Your task to perform on an android device: Go to Android settings Image 0: 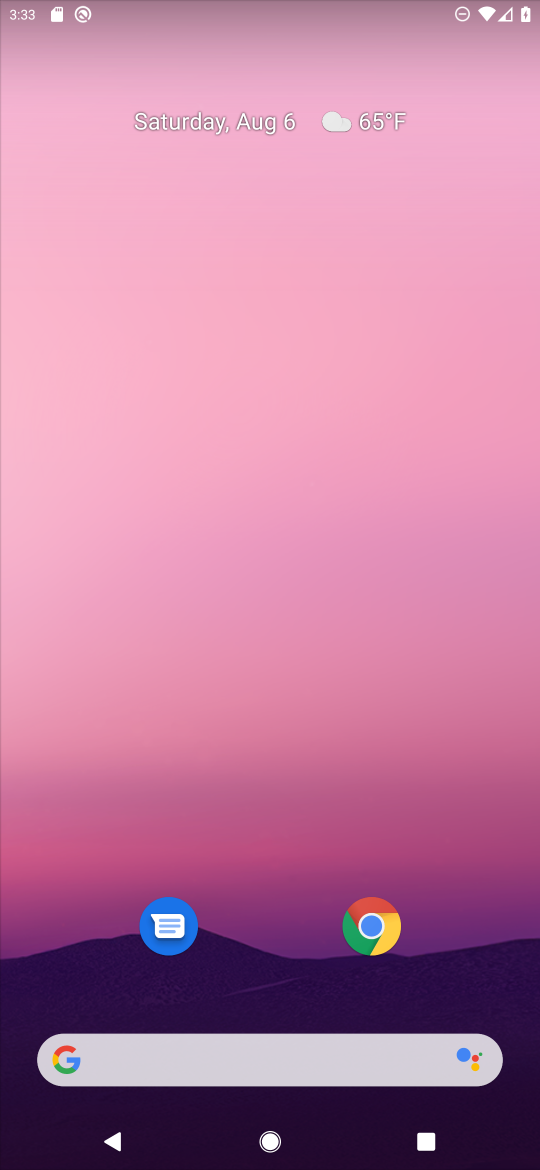
Step 0: drag from (233, 954) to (206, 239)
Your task to perform on an android device: Go to Android settings Image 1: 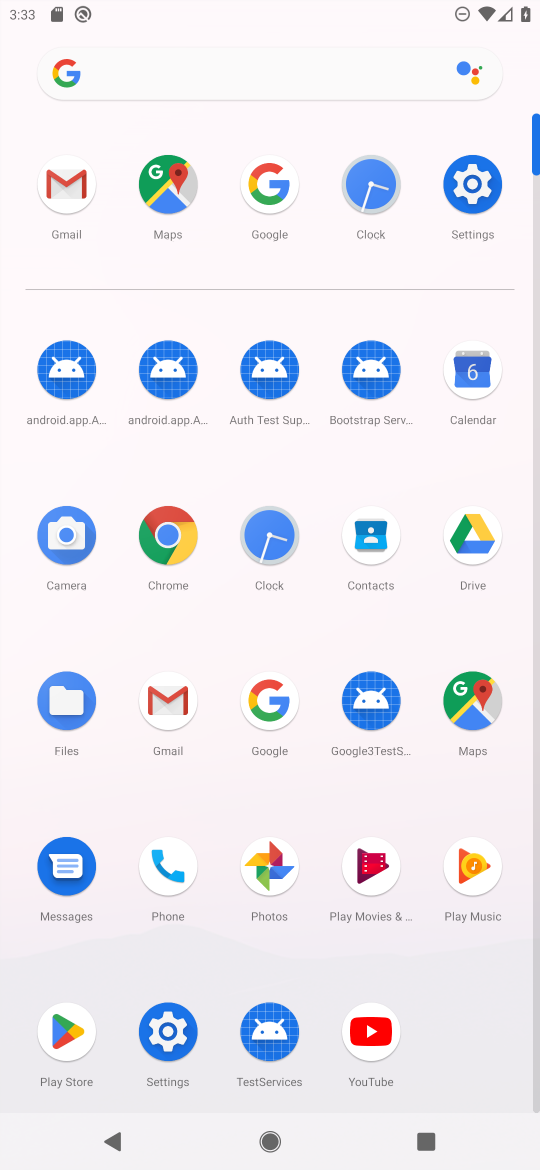
Step 1: click (433, 194)
Your task to perform on an android device: Go to Android settings Image 2: 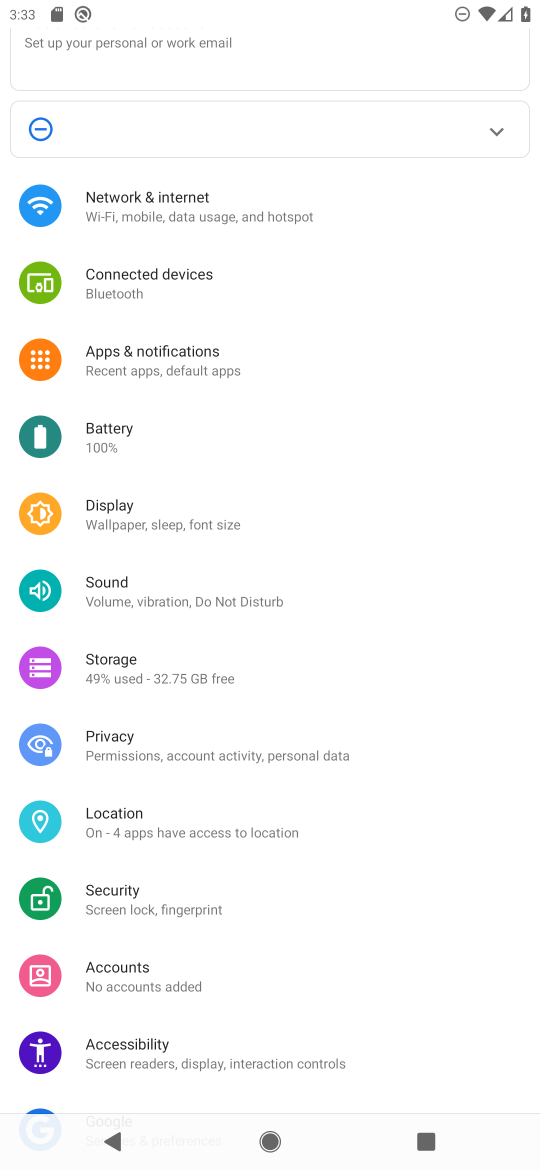
Step 2: task complete